Your task to perform on an android device: What's the weather? Image 0: 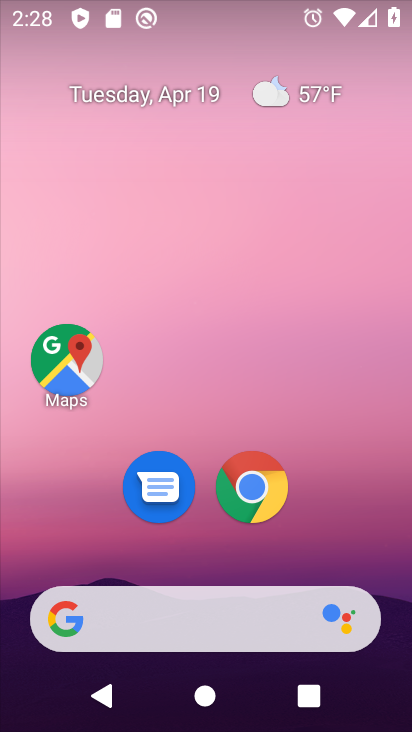
Step 0: click (172, 617)
Your task to perform on an android device: What's the weather? Image 1: 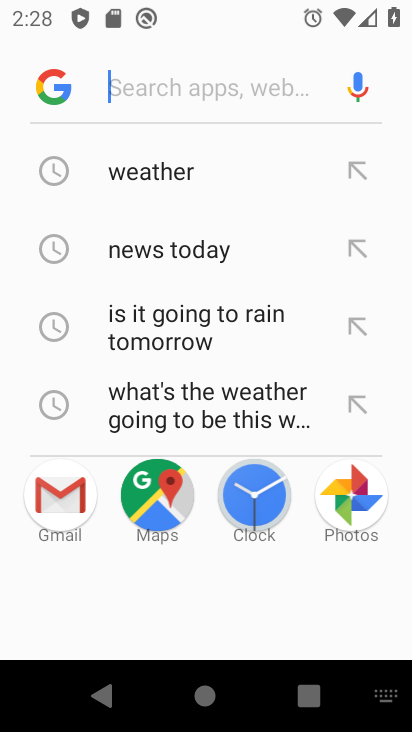
Step 1: click (104, 186)
Your task to perform on an android device: What's the weather? Image 2: 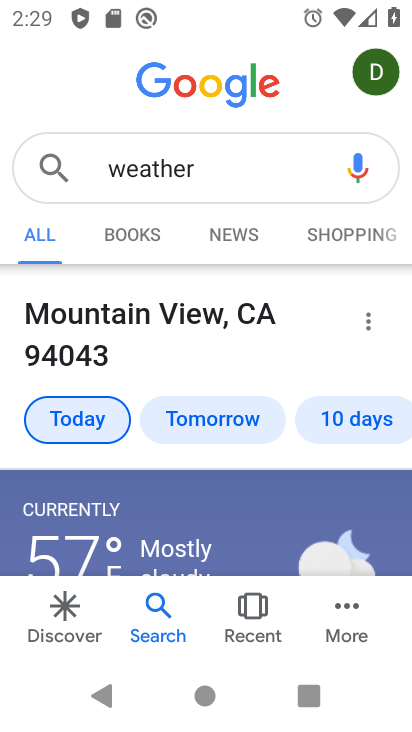
Step 2: task complete